Your task to perform on an android device: Open CNN.com Image 0: 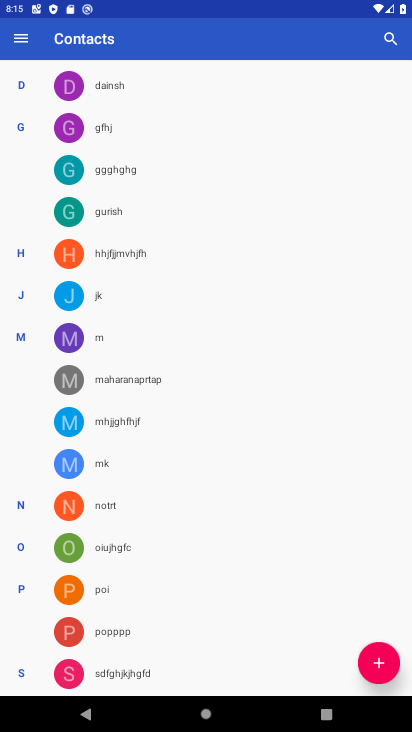
Step 0: press home button
Your task to perform on an android device: Open CNN.com Image 1: 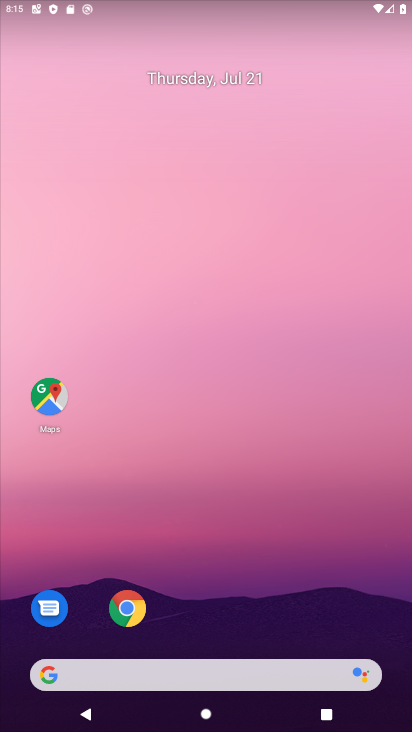
Step 1: click (112, 679)
Your task to perform on an android device: Open CNN.com Image 2: 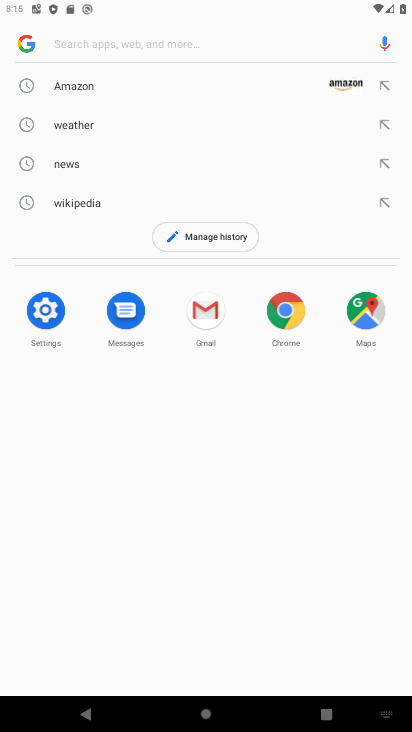
Step 2: type "CNN.com"
Your task to perform on an android device: Open CNN.com Image 3: 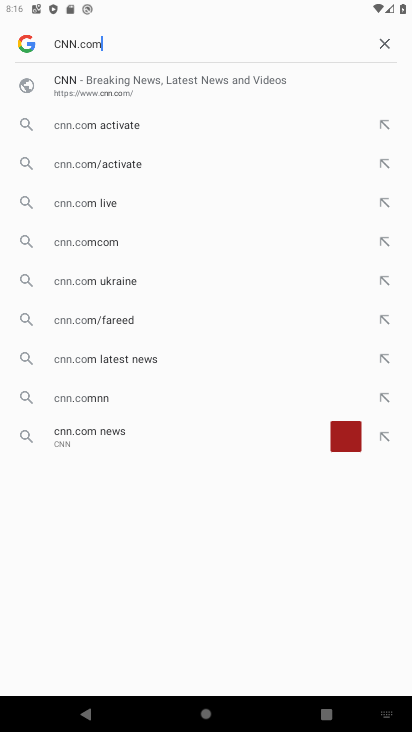
Step 3: type ""
Your task to perform on an android device: Open CNN.com Image 4: 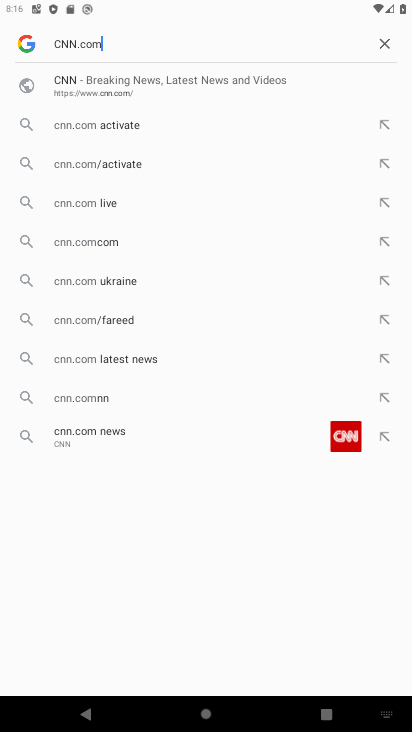
Step 4: click (63, 77)
Your task to perform on an android device: Open CNN.com Image 5: 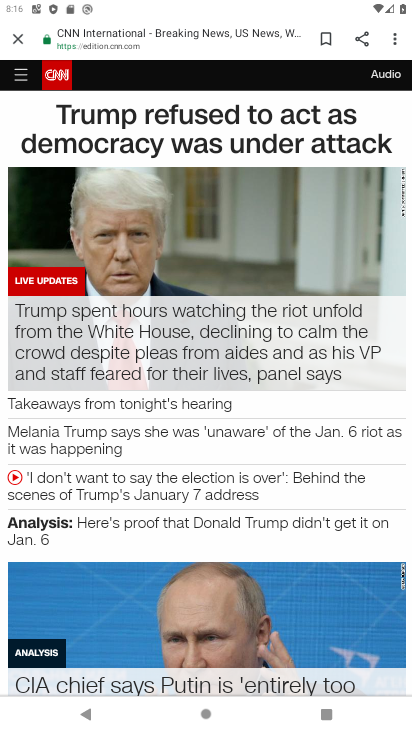
Step 5: task complete